Your task to perform on an android device: turn off picture-in-picture Image 0: 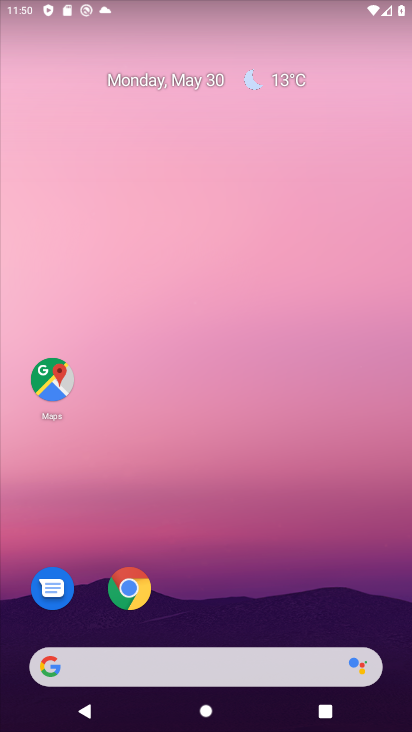
Step 0: click (130, 586)
Your task to perform on an android device: turn off picture-in-picture Image 1: 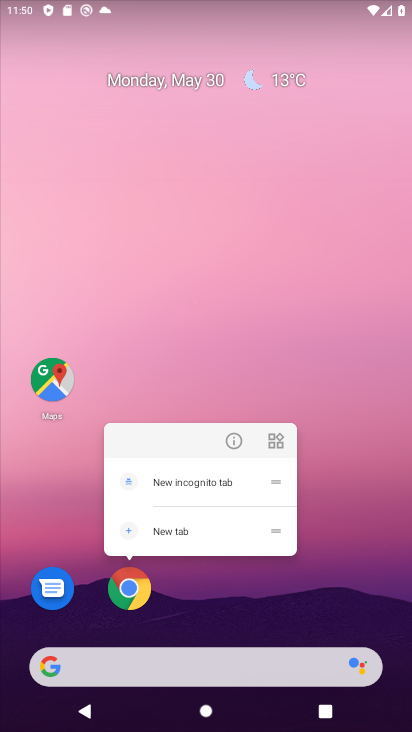
Step 1: click (235, 438)
Your task to perform on an android device: turn off picture-in-picture Image 2: 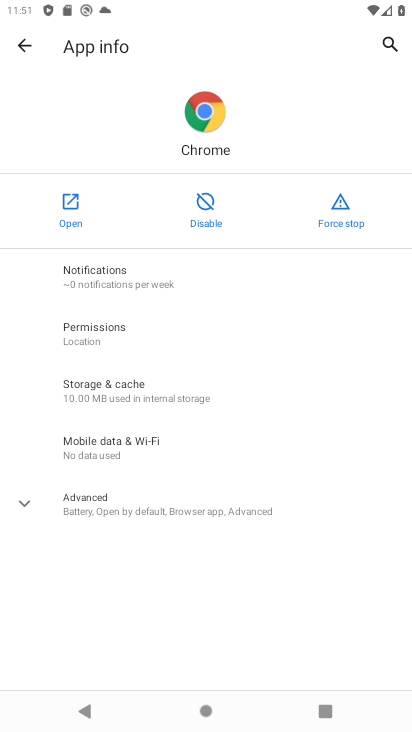
Step 2: click (83, 500)
Your task to perform on an android device: turn off picture-in-picture Image 3: 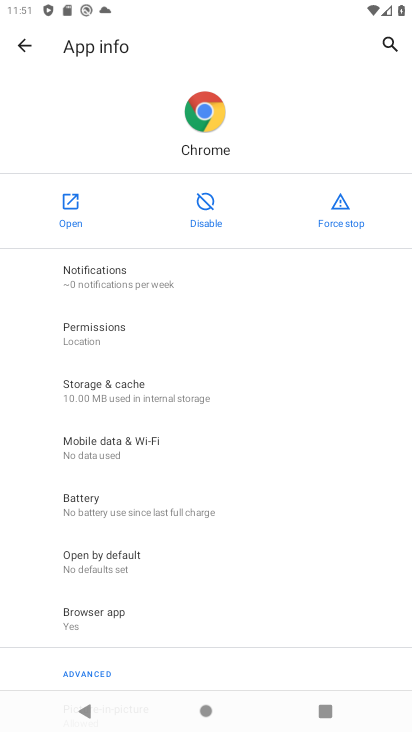
Step 3: drag from (300, 588) to (279, 262)
Your task to perform on an android device: turn off picture-in-picture Image 4: 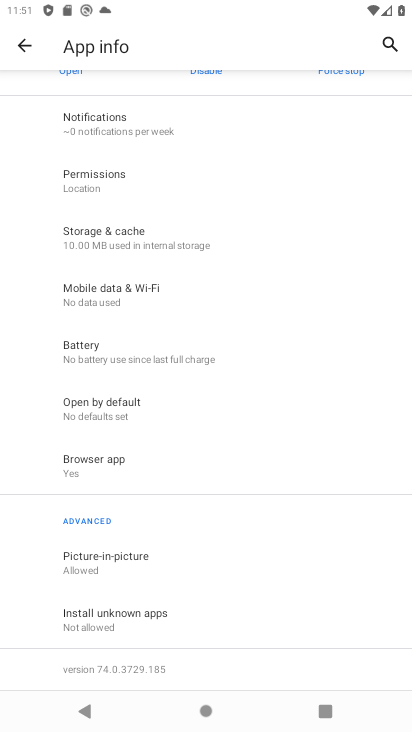
Step 4: drag from (247, 592) to (234, 248)
Your task to perform on an android device: turn off picture-in-picture Image 5: 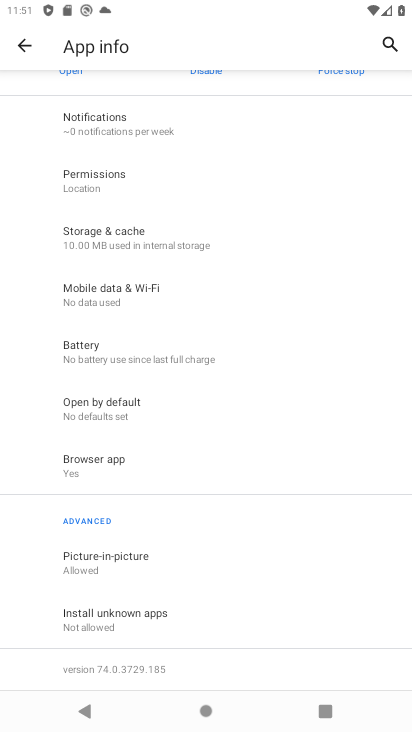
Step 5: click (85, 565)
Your task to perform on an android device: turn off picture-in-picture Image 6: 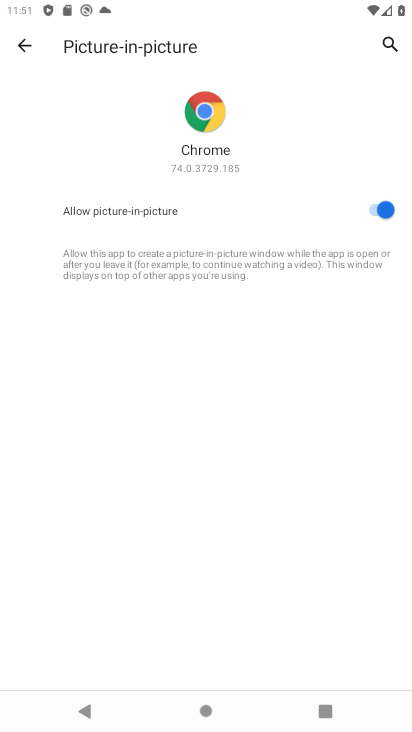
Step 6: click (377, 207)
Your task to perform on an android device: turn off picture-in-picture Image 7: 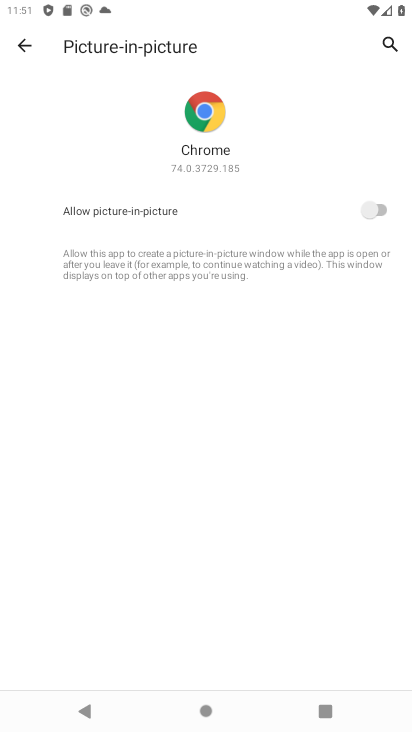
Step 7: task complete